Your task to perform on an android device: Open calendar and show me the first week of next month Image 0: 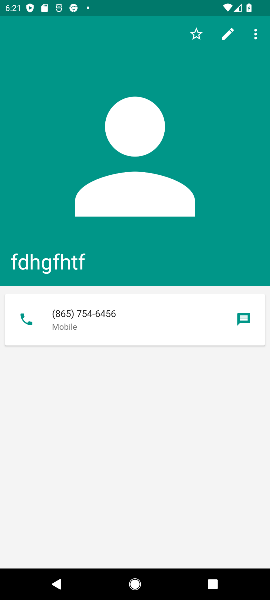
Step 0: press home button
Your task to perform on an android device: Open calendar and show me the first week of next month Image 1: 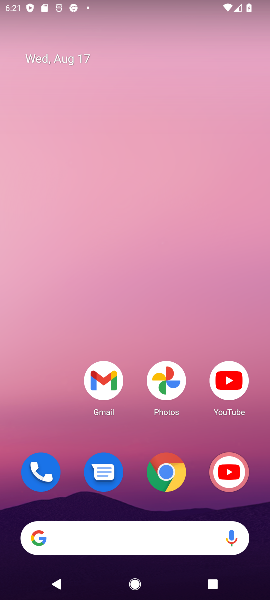
Step 1: drag from (138, 435) to (109, 116)
Your task to perform on an android device: Open calendar and show me the first week of next month Image 2: 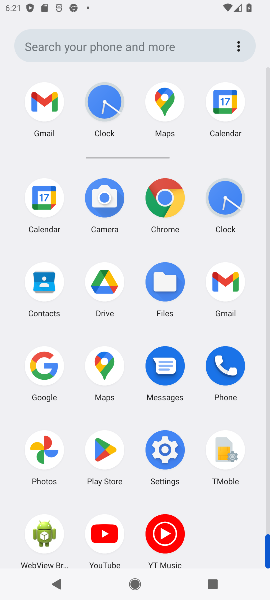
Step 2: click (46, 219)
Your task to perform on an android device: Open calendar and show me the first week of next month Image 3: 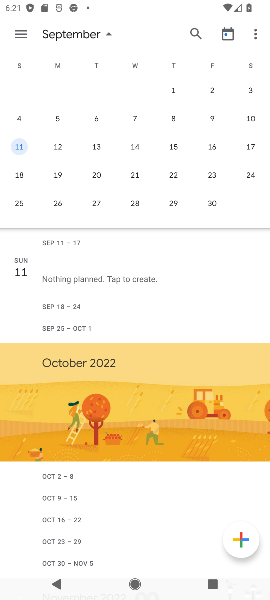
Step 3: click (176, 94)
Your task to perform on an android device: Open calendar and show me the first week of next month Image 4: 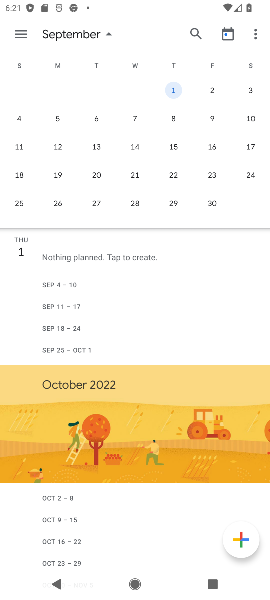
Step 4: click (177, 93)
Your task to perform on an android device: Open calendar and show me the first week of next month Image 5: 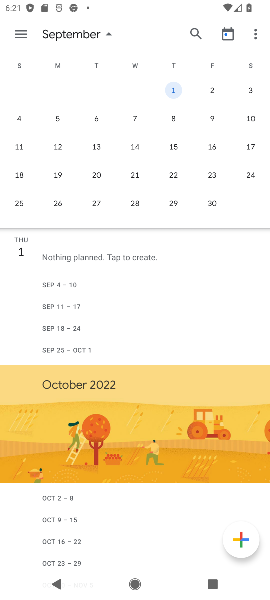
Step 5: task complete